Your task to perform on an android device: toggle translation in the chrome app Image 0: 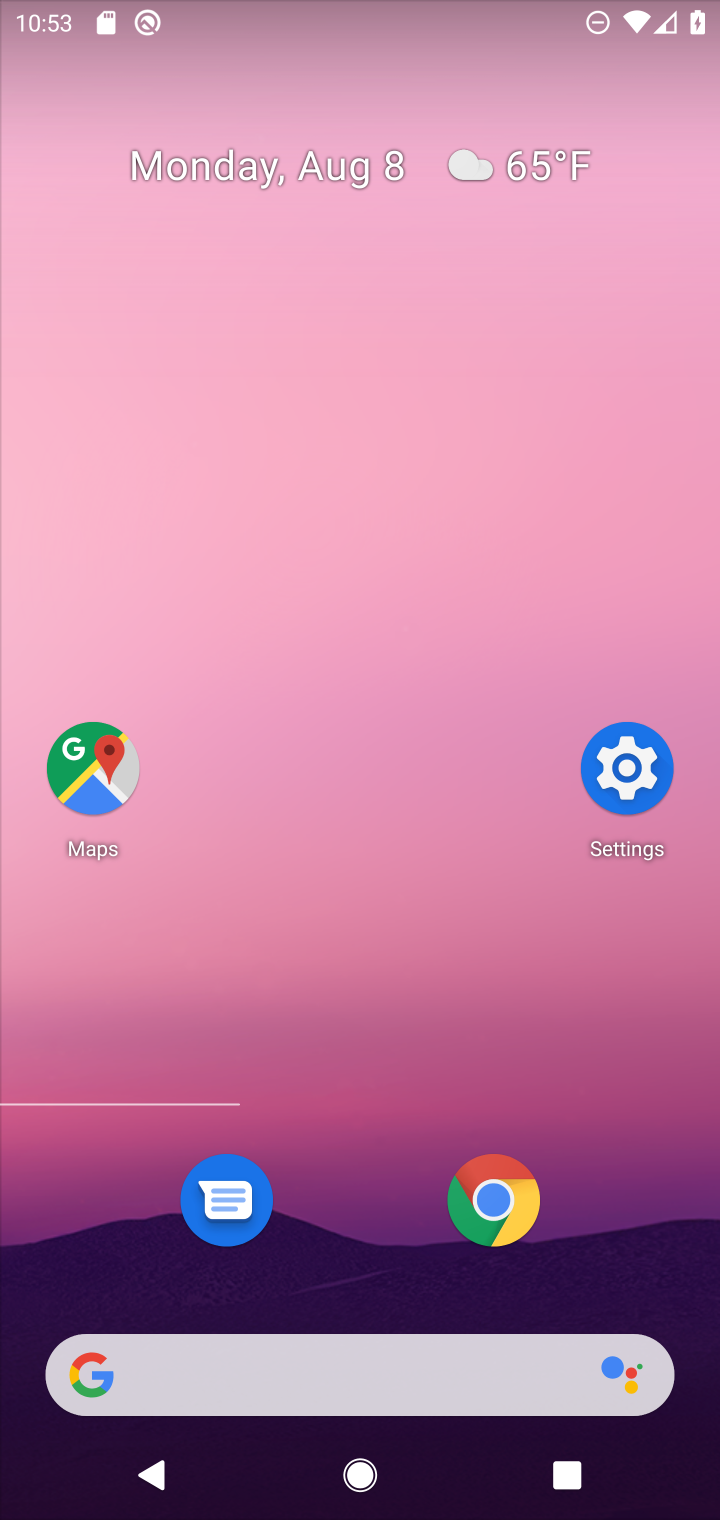
Step 0: press home button
Your task to perform on an android device: toggle translation in the chrome app Image 1: 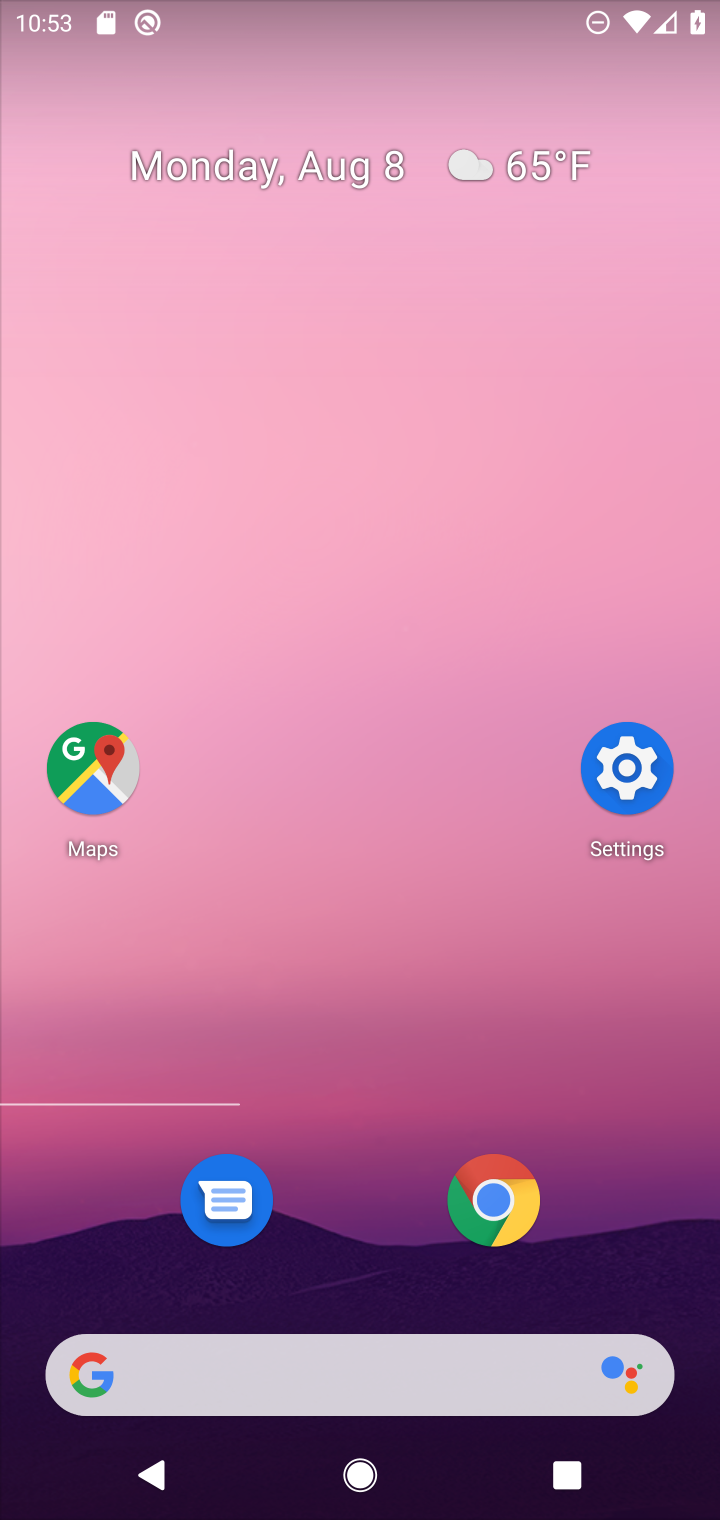
Step 1: click (488, 1211)
Your task to perform on an android device: toggle translation in the chrome app Image 2: 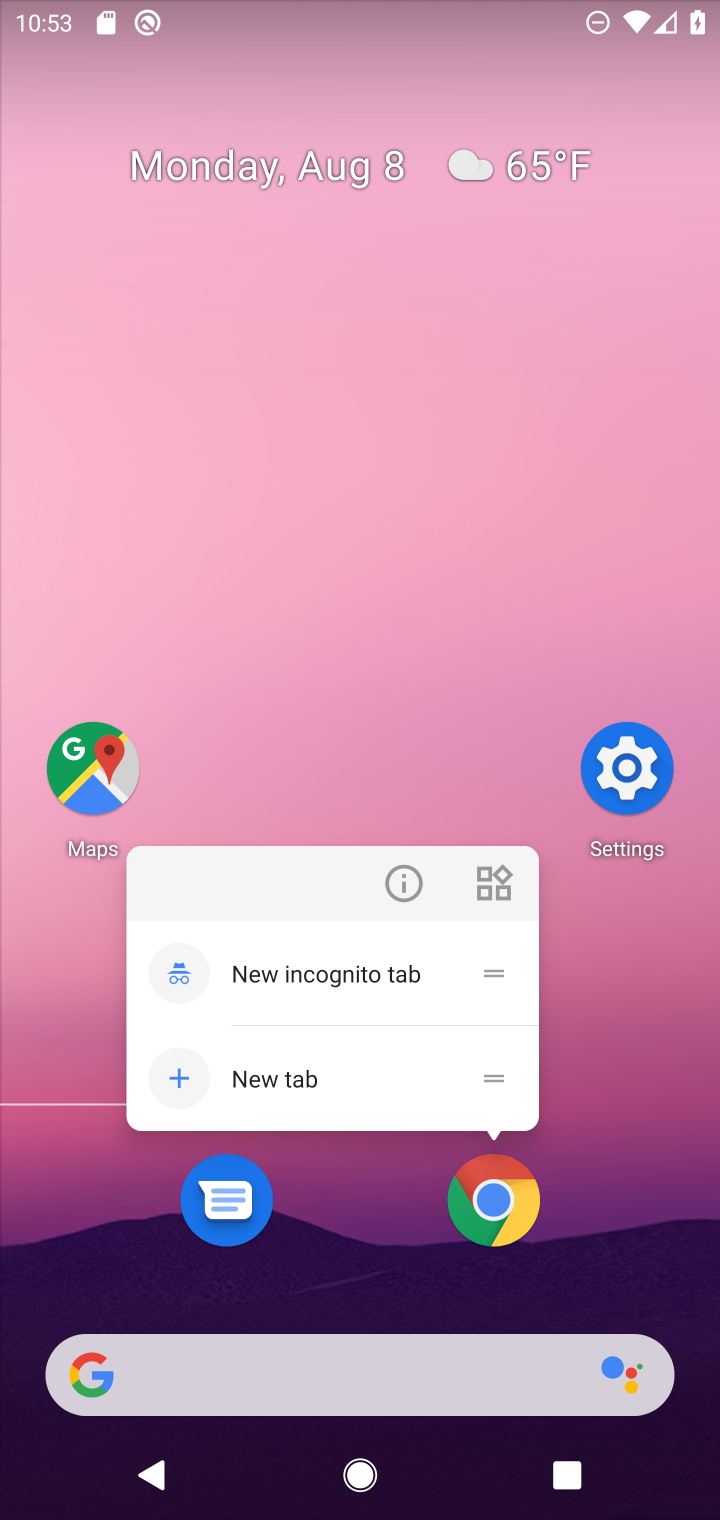
Step 2: click (488, 1221)
Your task to perform on an android device: toggle translation in the chrome app Image 3: 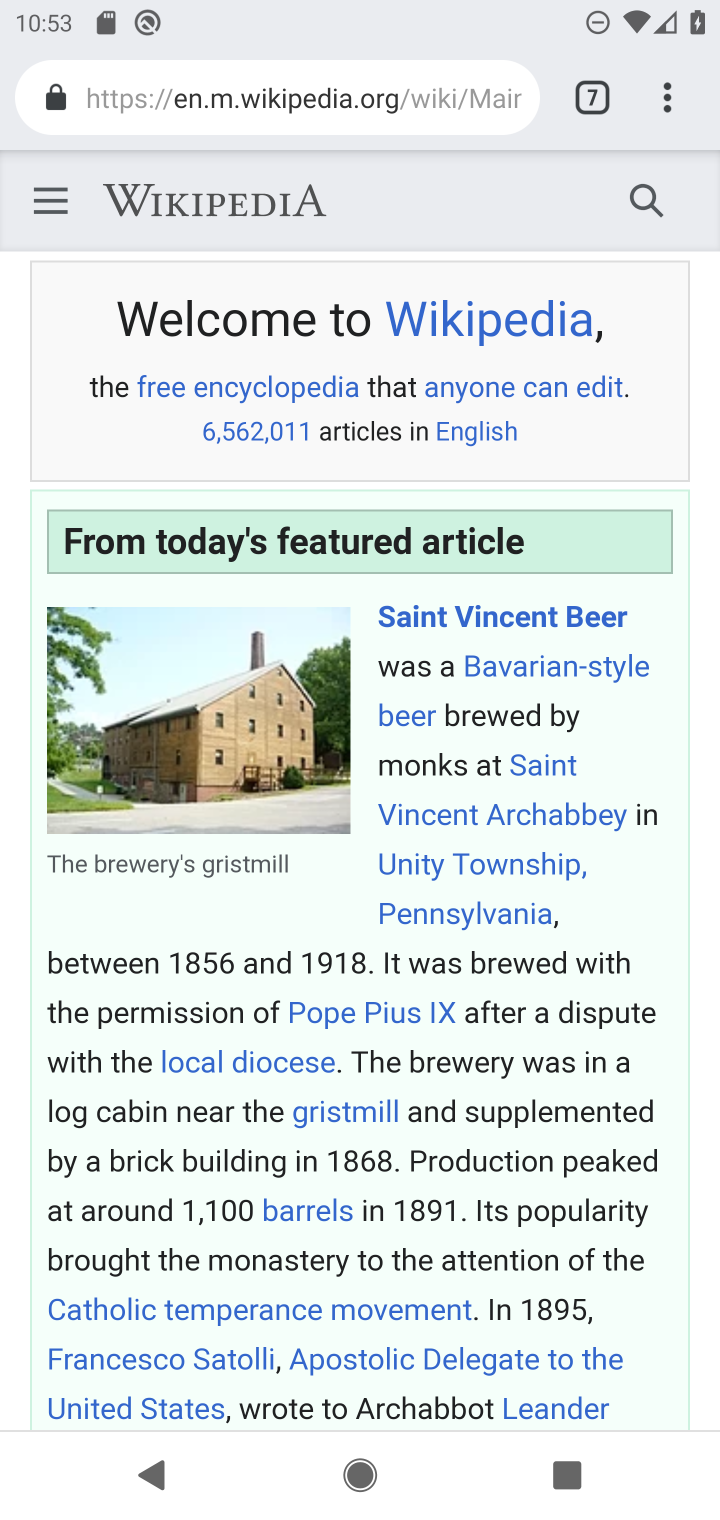
Step 3: drag from (654, 90) to (402, 1295)
Your task to perform on an android device: toggle translation in the chrome app Image 4: 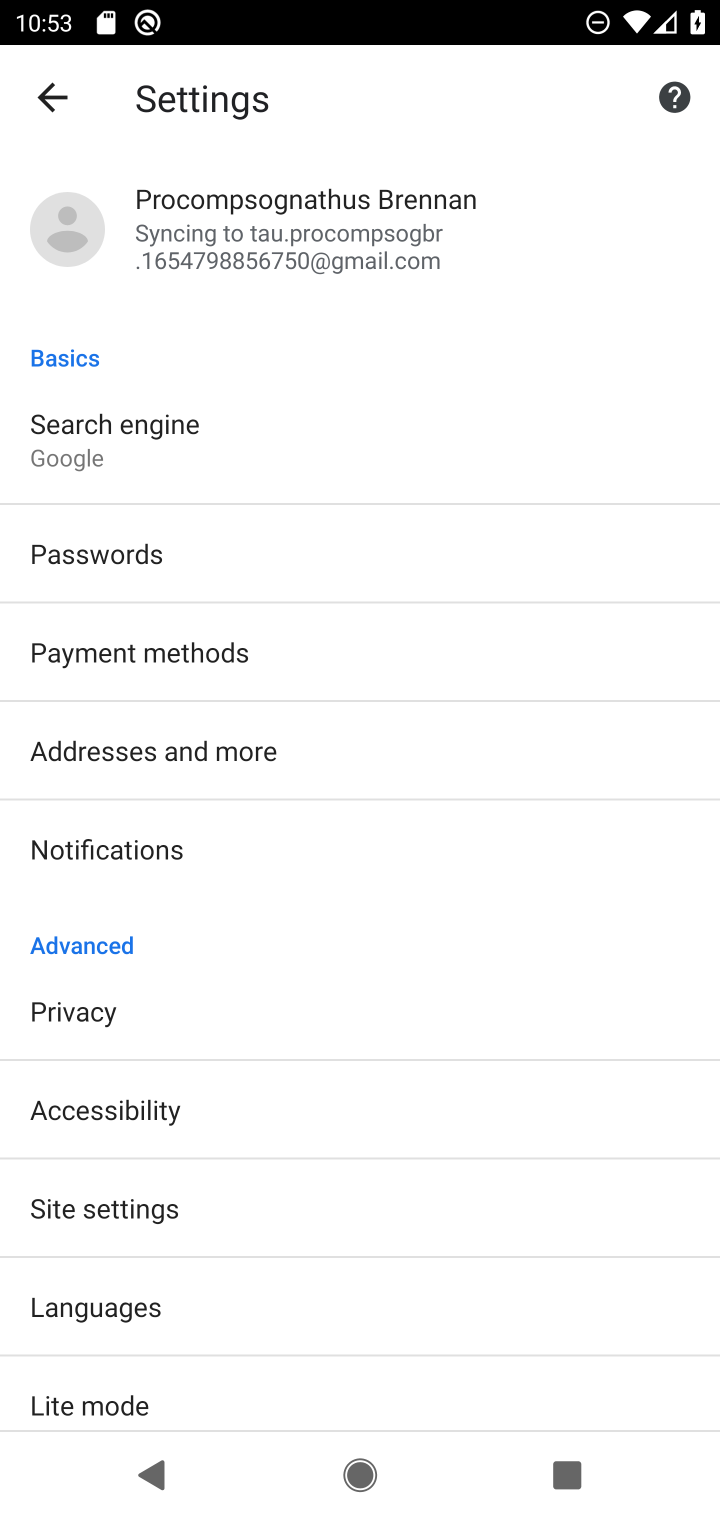
Step 4: click (161, 1316)
Your task to perform on an android device: toggle translation in the chrome app Image 5: 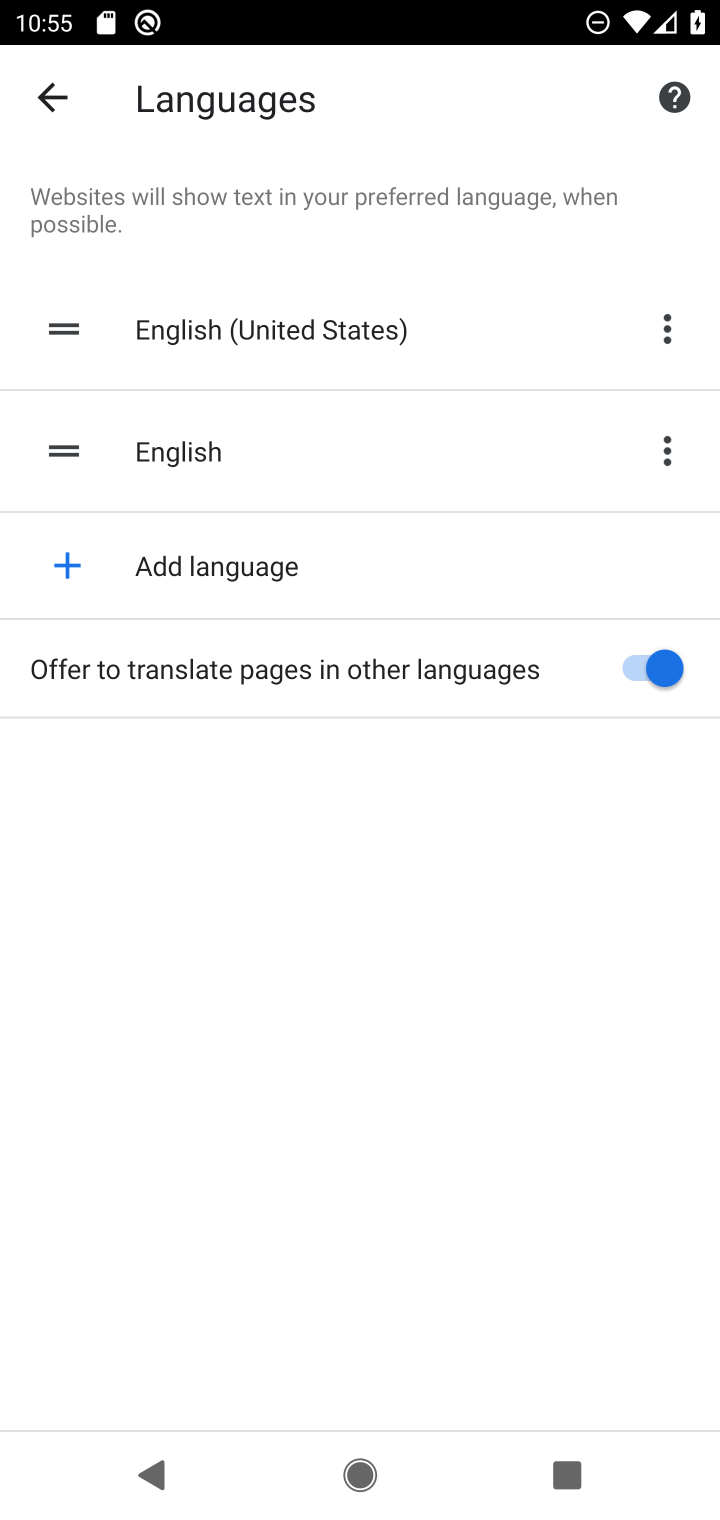
Step 5: task complete